Your task to perform on an android device: delete browsing data in the chrome app Image 0: 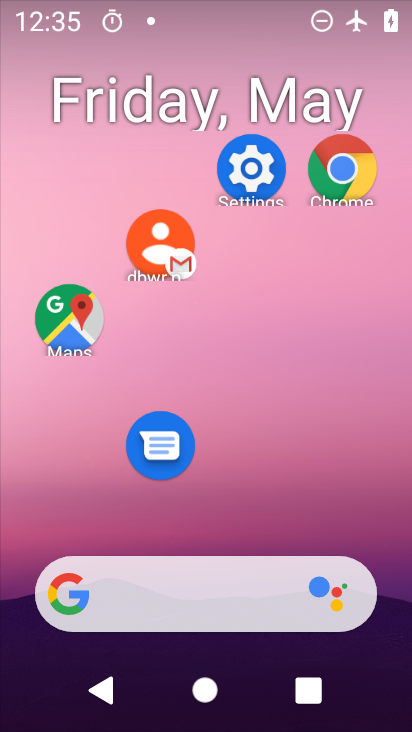
Step 0: click (189, 32)
Your task to perform on an android device: delete browsing data in the chrome app Image 1: 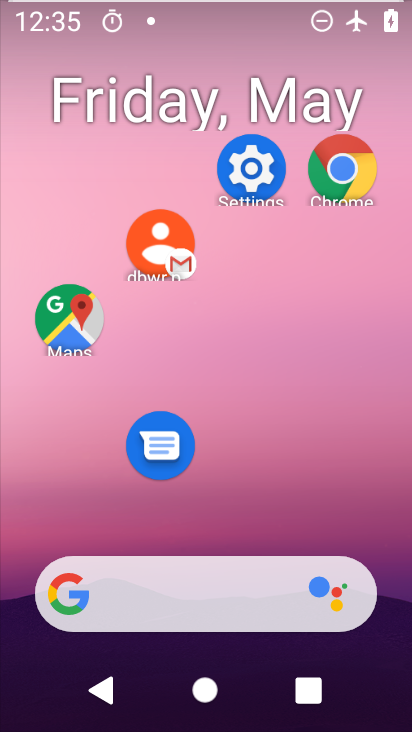
Step 1: click (356, 173)
Your task to perform on an android device: delete browsing data in the chrome app Image 2: 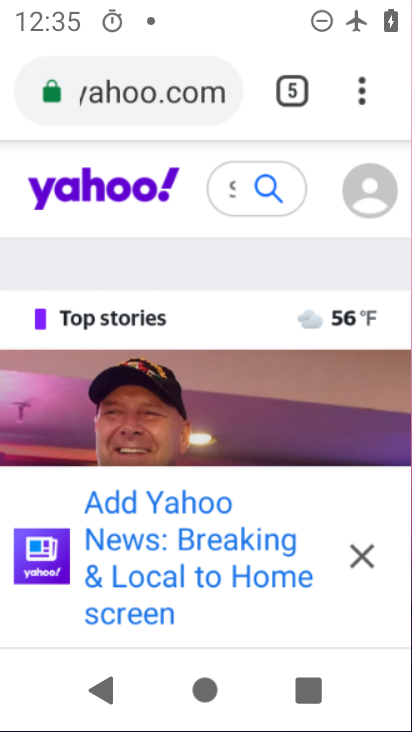
Step 2: click (335, 185)
Your task to perform on an android device: delete browsing data in the chrome app Image 3: 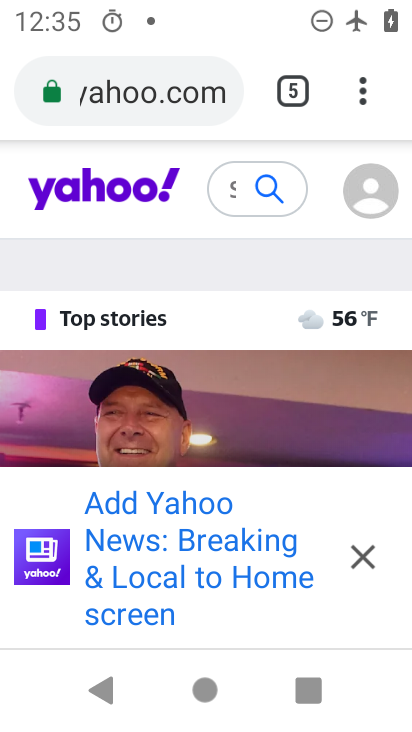
Step 3: click (354, 101)
Your task to perform on an android device: delete browsing data in the chrome app Image 4: 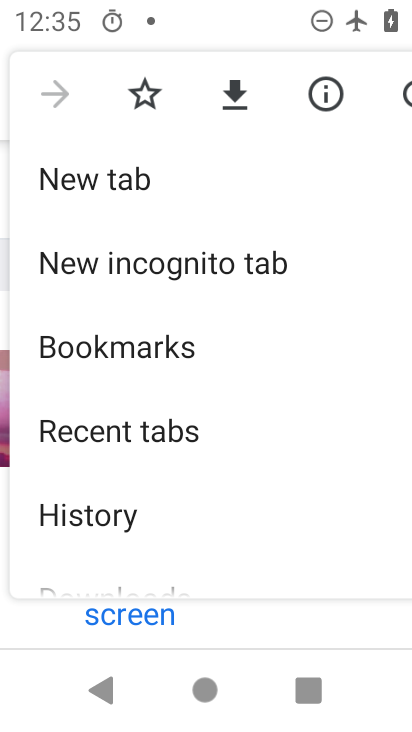
Step 4: click (139, 537)
Your task to perform on an android device: delete browsing data in the chrome app Image 5: 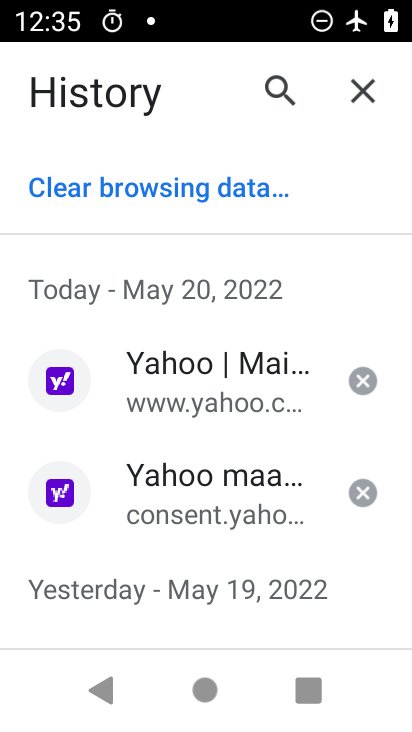
Step 5: click (146, 188)
Your task to perform on an android device: delete browsing data in the chrome app Image 6: 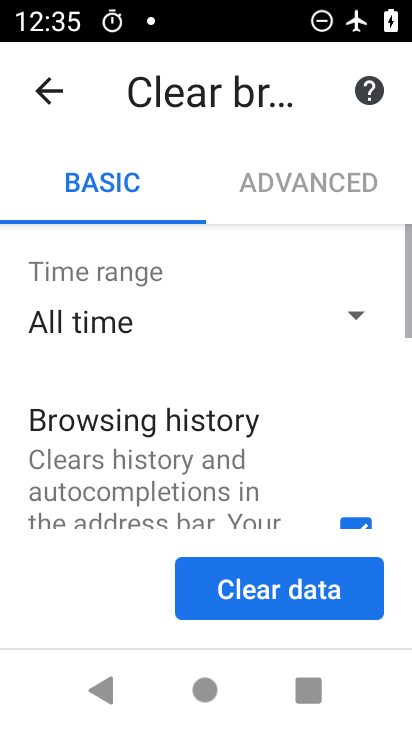
Step 6: click (274, 601)
Your task to perform on an android device: delete browsing data in the chrome app Image 7: 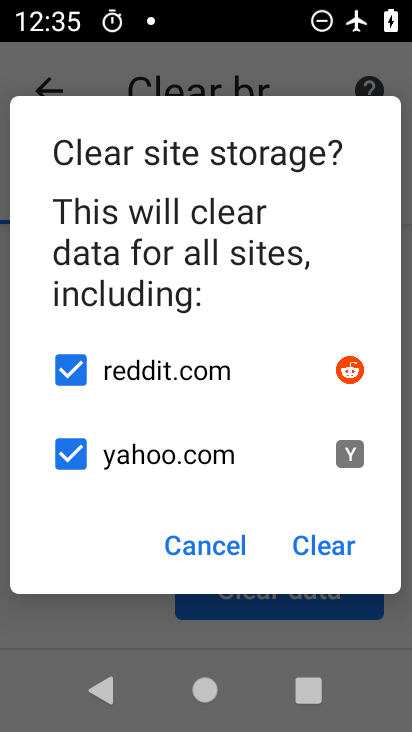
Step 7: click (310, 539)
Your task to perform on an android device: delete browsing data in the chrome app Image 8: 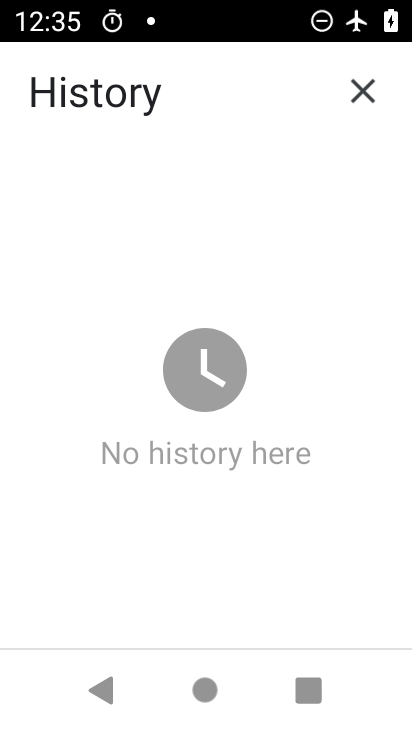
Step 8: task complete